Your task to perform on an android device: check out phone information Image 0: 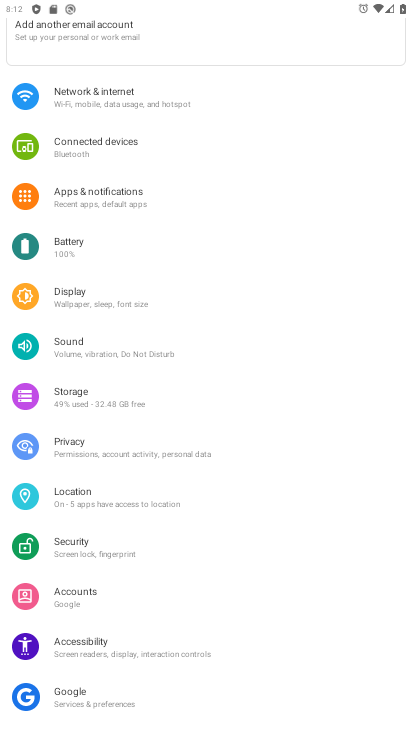
Step 0: press home button
Your task to perform on an android device: check out phone information Image 1: 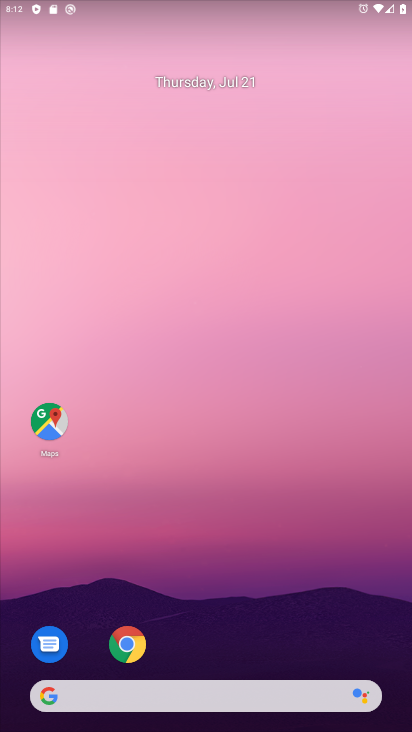
Step 1: drag from (301, 566) to (316, 187)
Your task to perform on an android device: check out phone information Image 2: 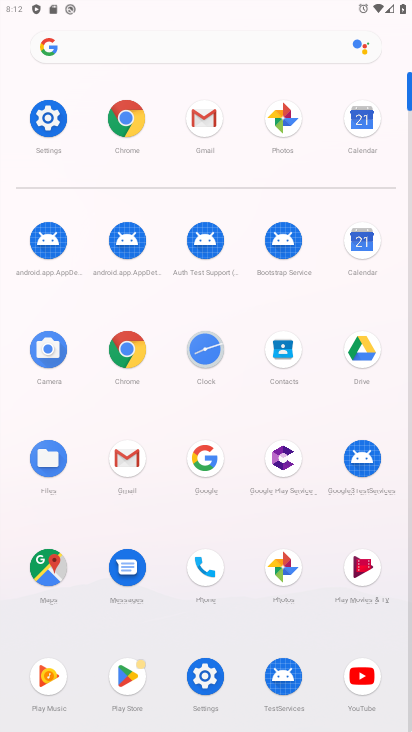
Step 2: click (215, 570)
Your task to perform on an android device: check out phone information Image 3: 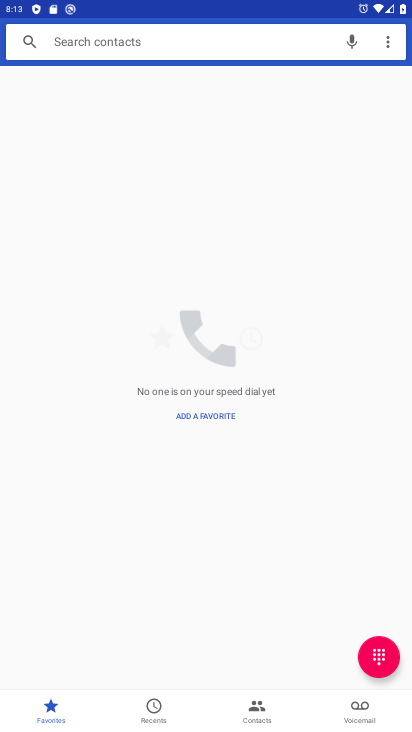
Step 3: task complete